Your task to perform on an android device: choose inbox layout in the gmail app Image 0: 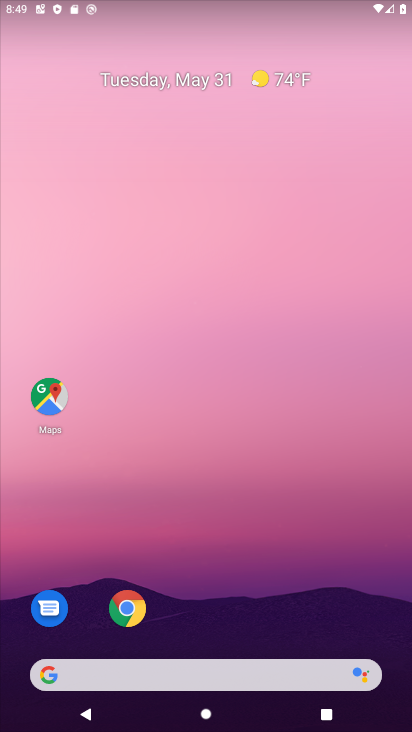
Step 0: drag from (246, 643) to (152, 85)
Your task to perform on an android device: choose inbox layout in the gmail app Image 1: 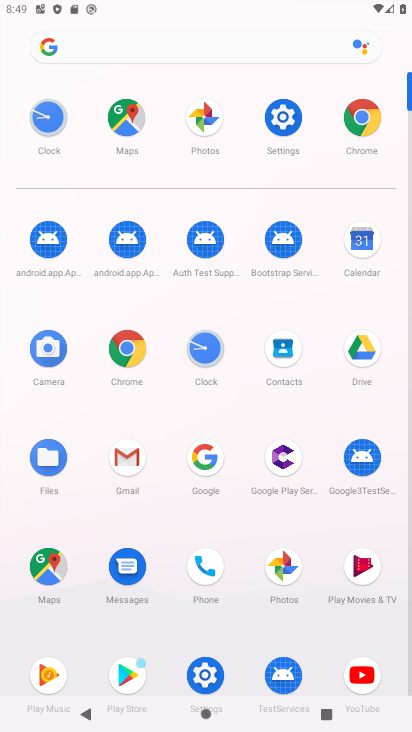
Step 1: click (133, 451)
Your task to perform on an android device: choose inbox layout in the gmail app Image 2: 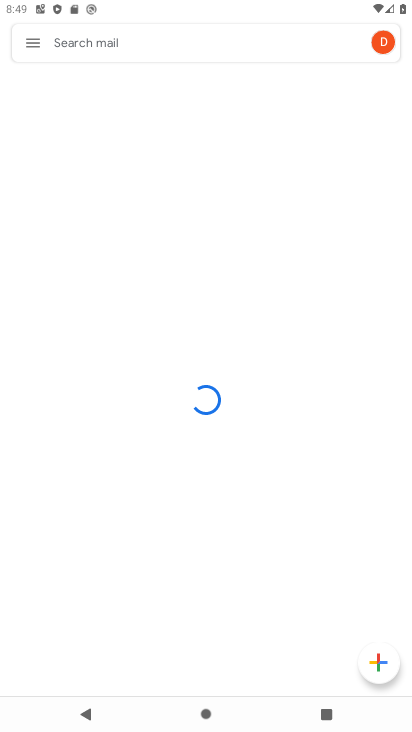
Step 2: click (32, 46)
Your task to perform on an android device: choose inbox layout in the gmail app Image 3: 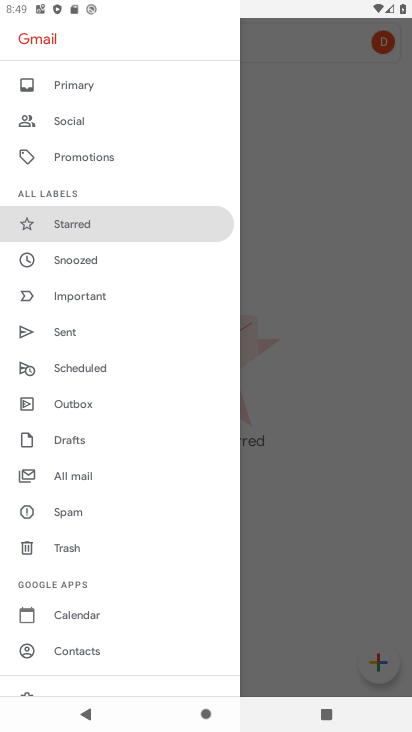
Step 3: drag from (79, 650) to (72, 493)
Your task to perform on an android device: choose inbox layout in the gmail app Image 4: 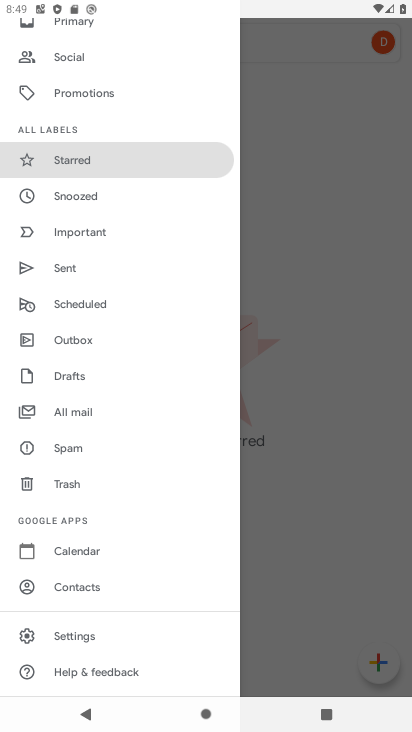
Step 4: click (63, 635)
Your task to perform on an android device: choose inbox layout in the gmail app Image 5: 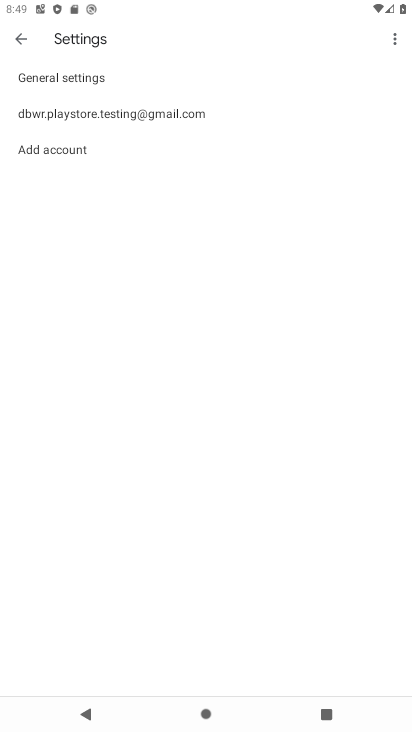
Step 5: click (95, 103)
Your task to perform on an android device: choose inbox layout in the gmail app Image 6: 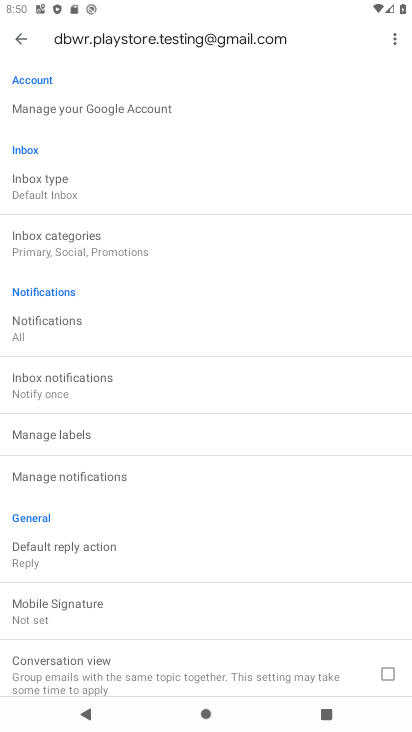
Step 6: click (71, 192)
Your task to perform on an android device: choose inbox layout in the gmail app Image 7: 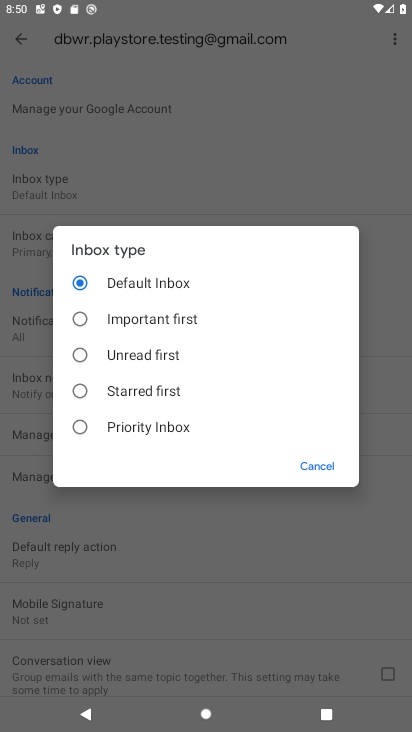
Step 7: click (92, 419)
Your task to perform on an android device: choose inbox layout in the gmail app Image 8: 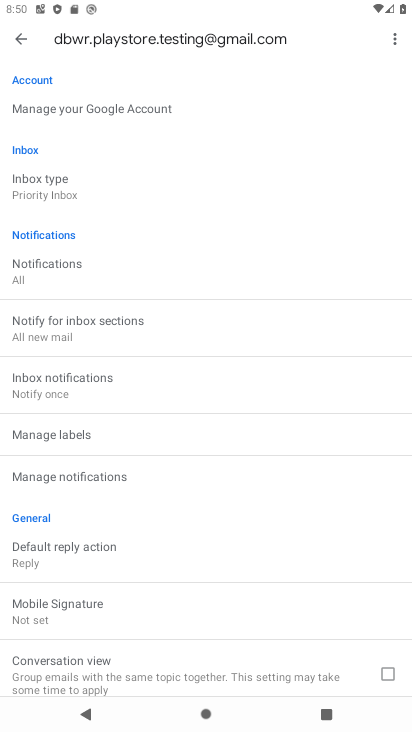
Step 8: click (22, 47)
Your task to perform on an android device: choose inbox layout in the gmail app Image 9: 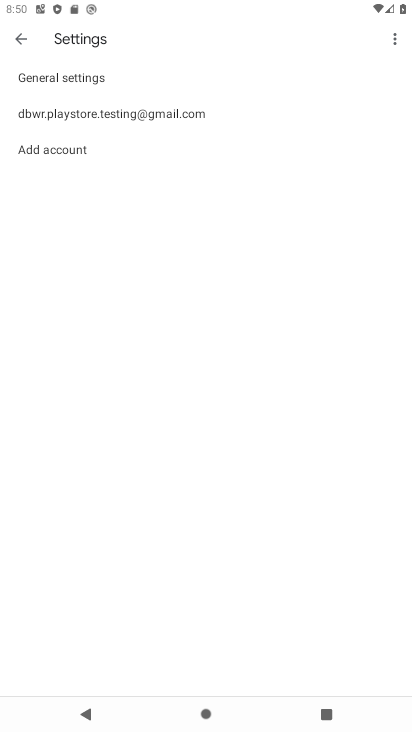
Step 9: click (22, 47)
Your task to perform on an android device: choose inbox layout in the gmail app Image 10: 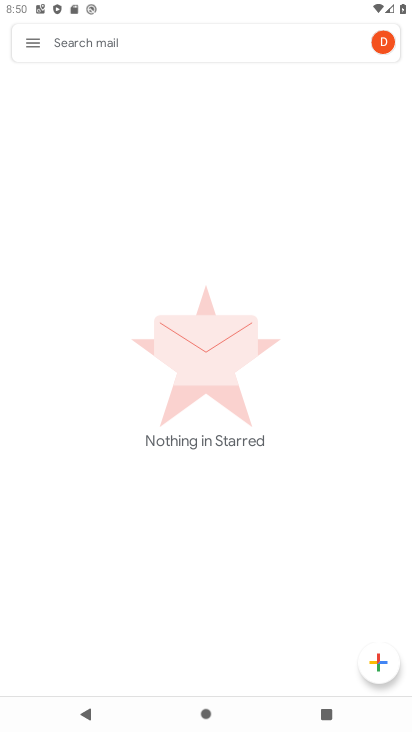
Step 10: click (22, 47)
Your task to perform on an android device: choose inbox layout in the gmail app Image 11: 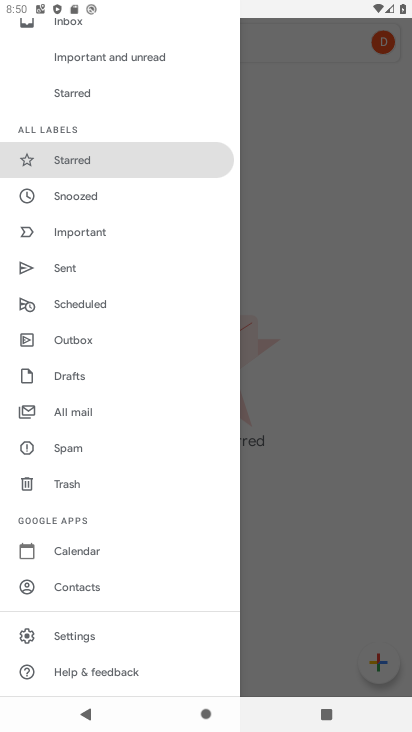
Step 11: drag from (66, 66) to (36, 420)
Your task to perform on an android device: choose inbox layout in the gmail app Image 12: 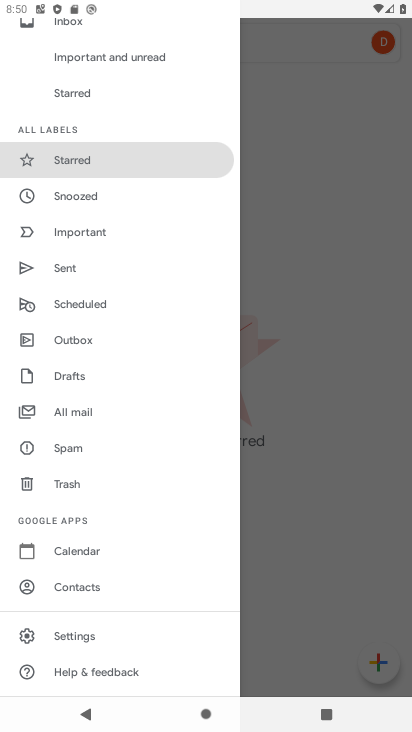
Step 12: click (87, 20)
Your task to perform on an android device: choose inbox layout in the gmail app Image 13: 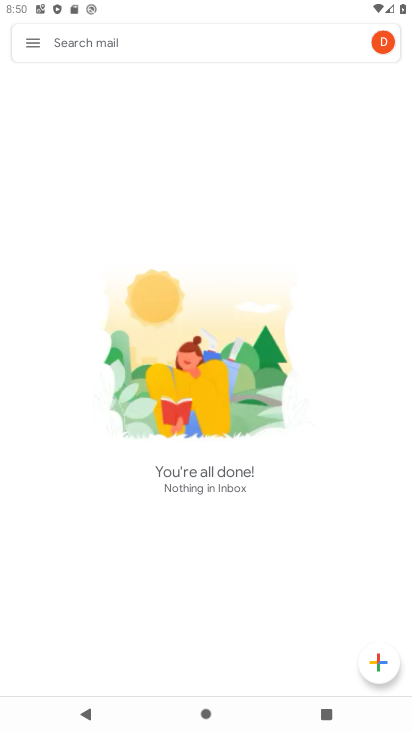
Step 13: task complete